Your task to perform on an android device: Go to notification settings Image 0: 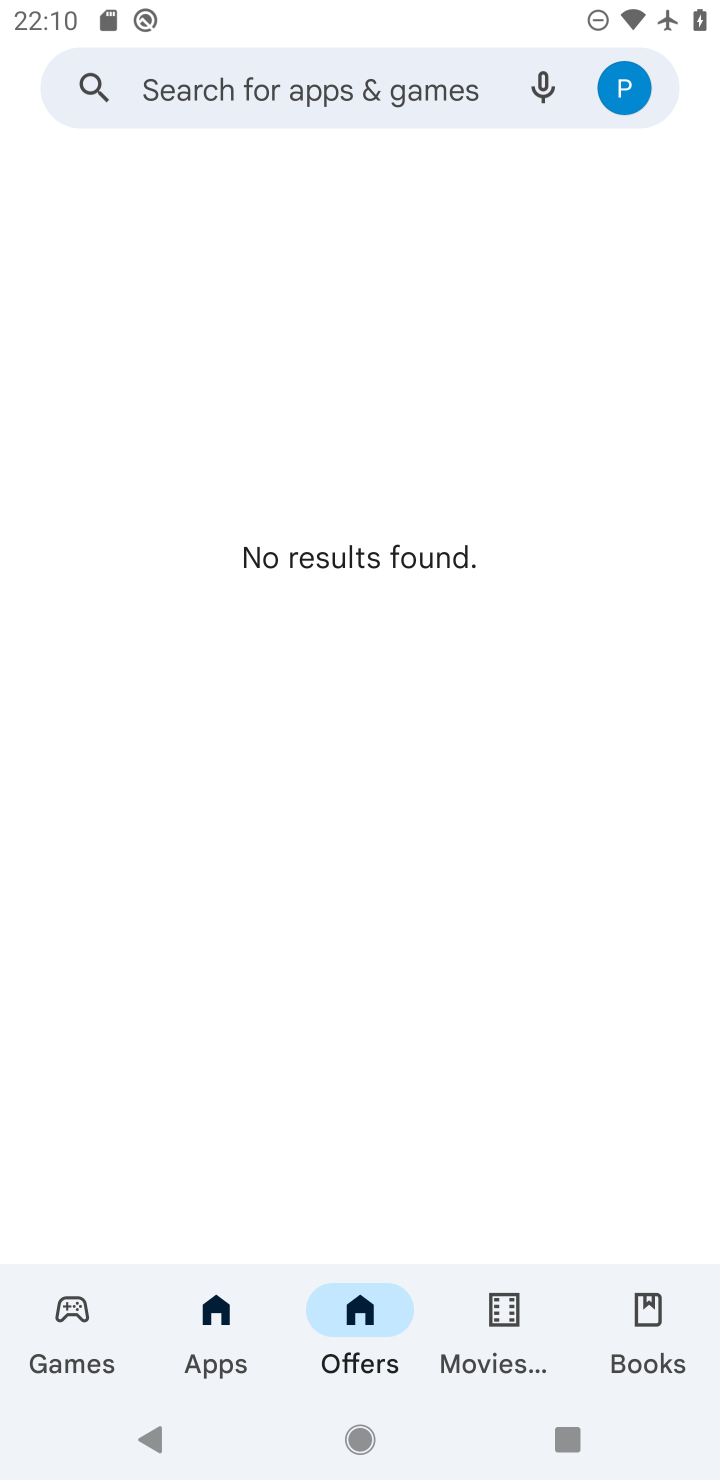
Step 0: press home button
Your task to perform on an android device: Go to notification settings Image 1: 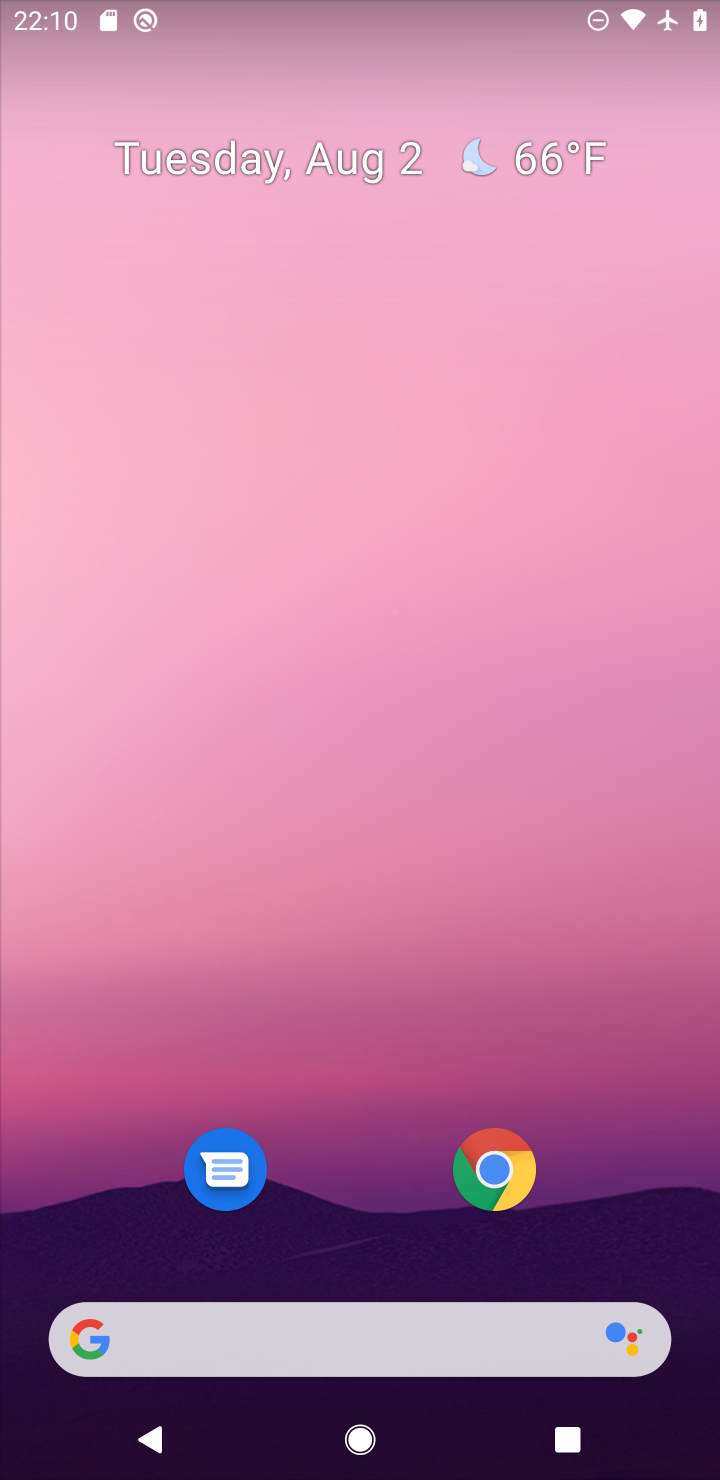
Step 1: drag from (370, 874) to (393, 36)
Your task to perform on an android device: Go to notification settings Image 2: 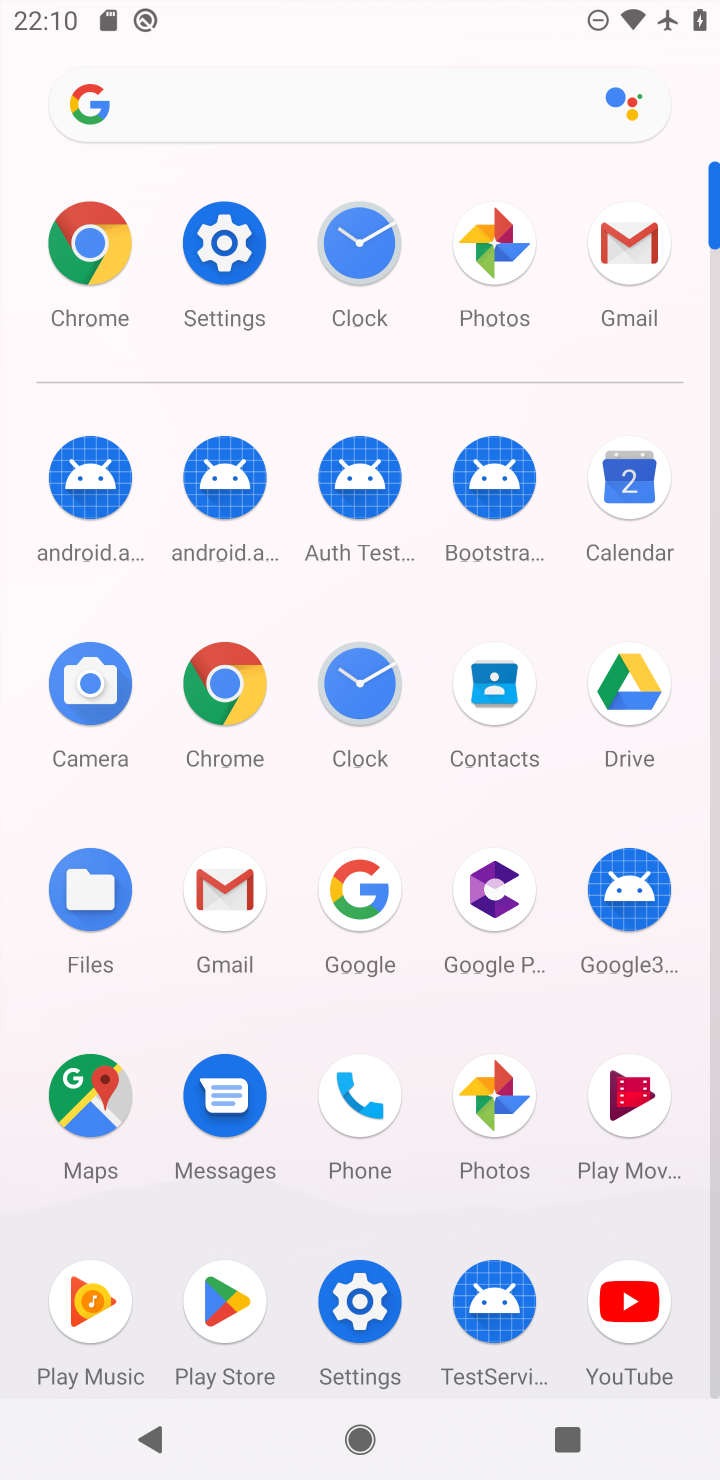
Step 2: click (225, 250)
Your task to perform on an android device: Go to notification settings Image 3: 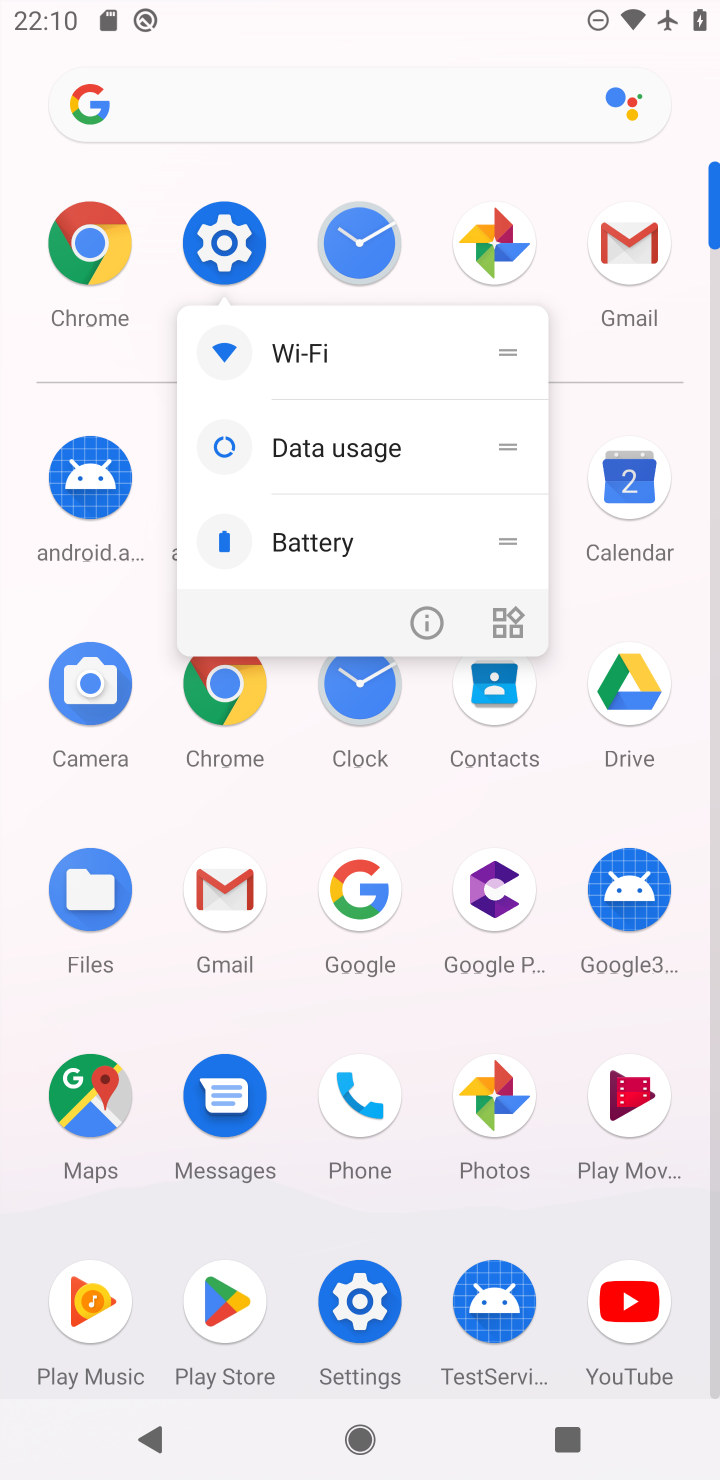
Step 3: click (225, 240)
Your task to perform on an android device: Go to notification settings Image 4: 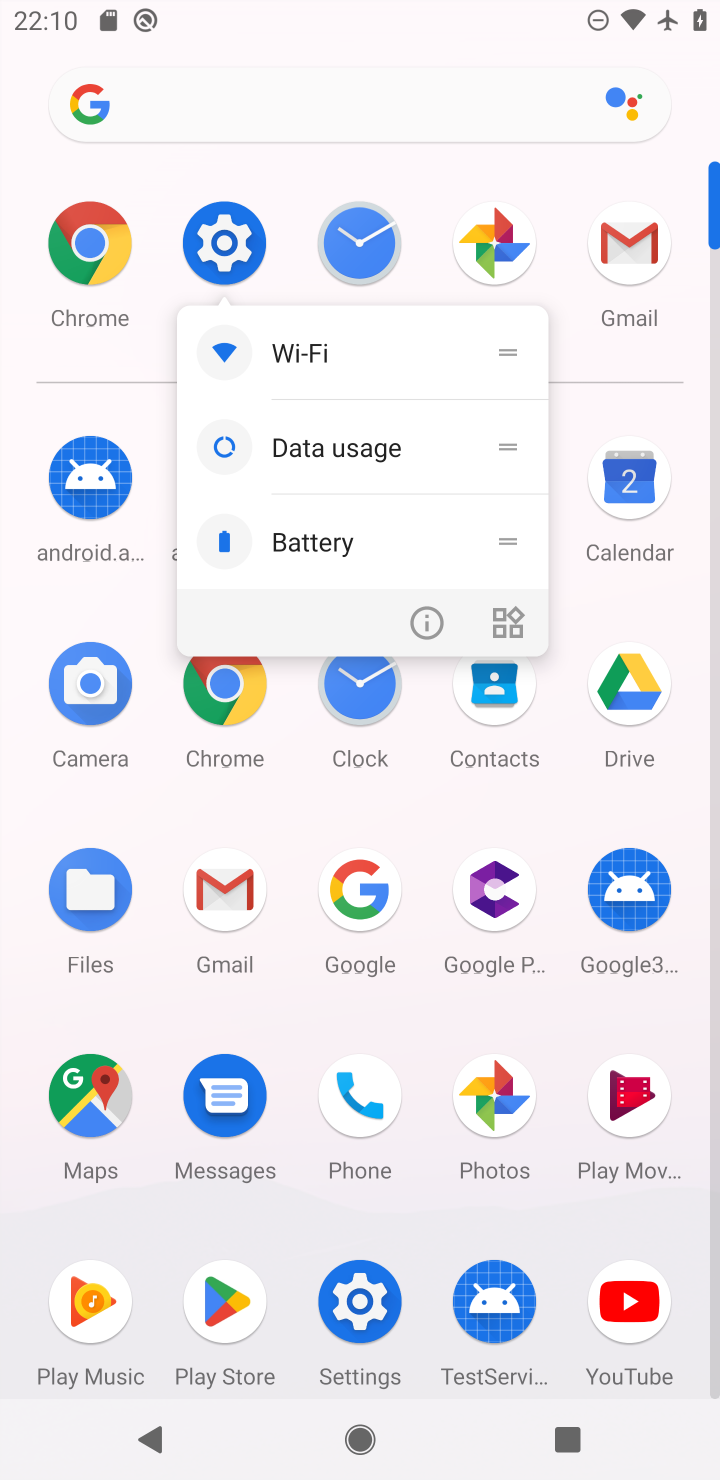
Step 4: click (222, 243)
Your task to perform on an android device: Go to notification settings Image 5: 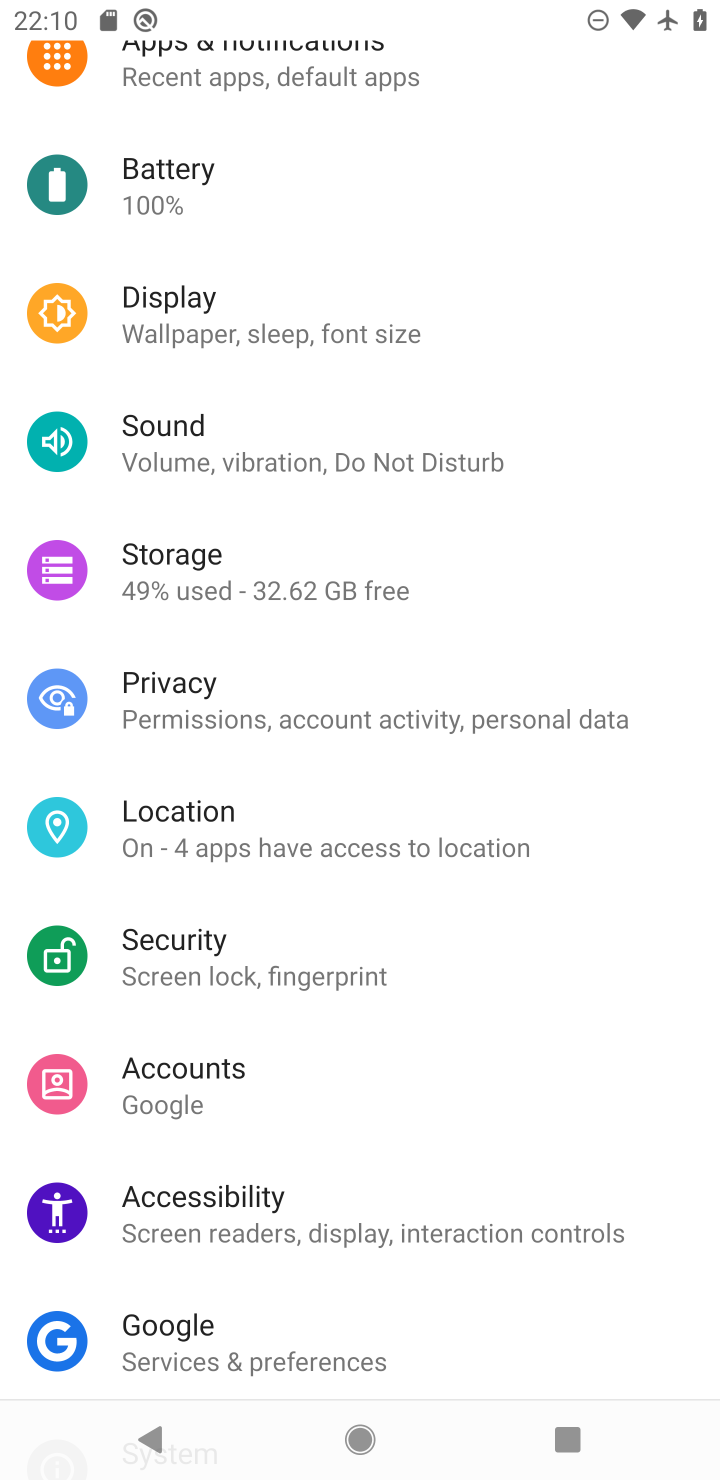
Step 5: drag from (292, 241) to (308, 1135)
Your task to perform on an android device: Go to notification settings Image 6: 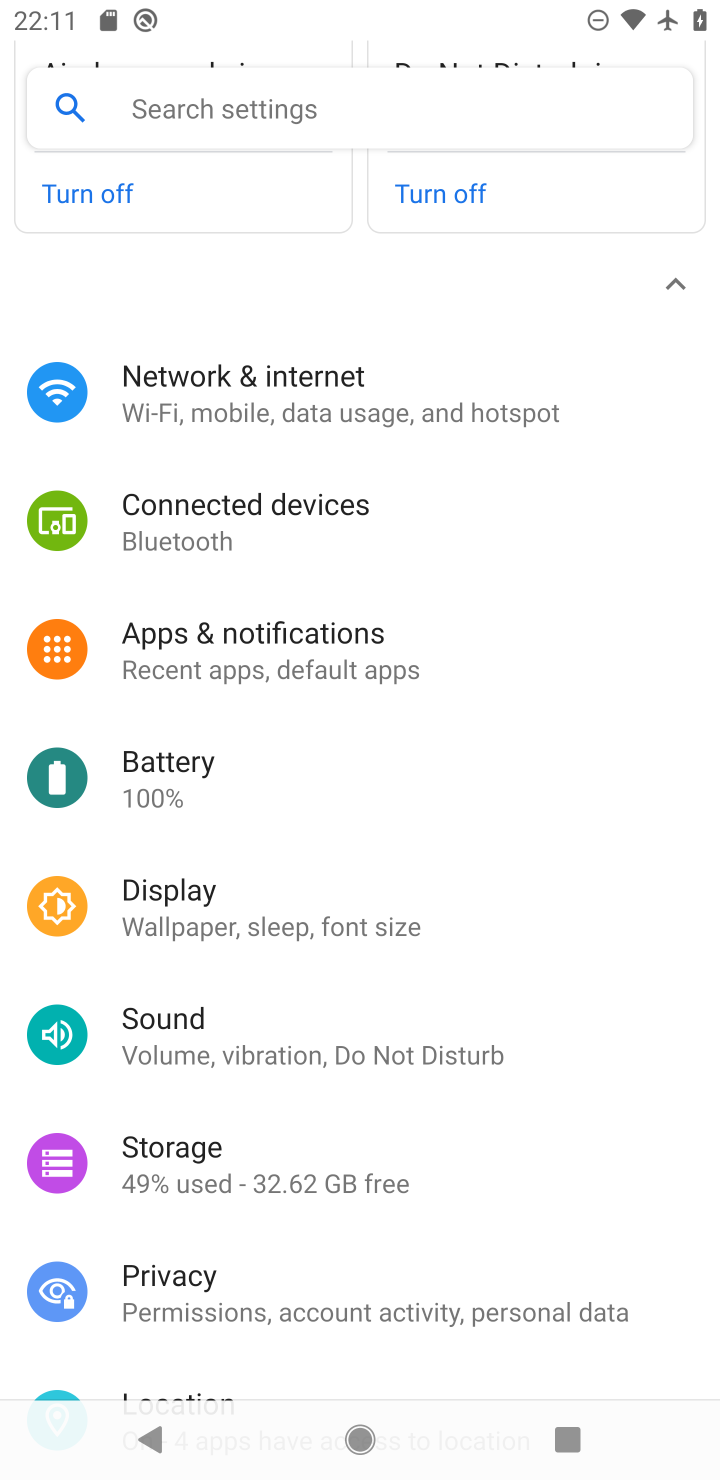
Step 6: click (256, 647)
Your task to perform on an android device: Go to notification settings Image 7: 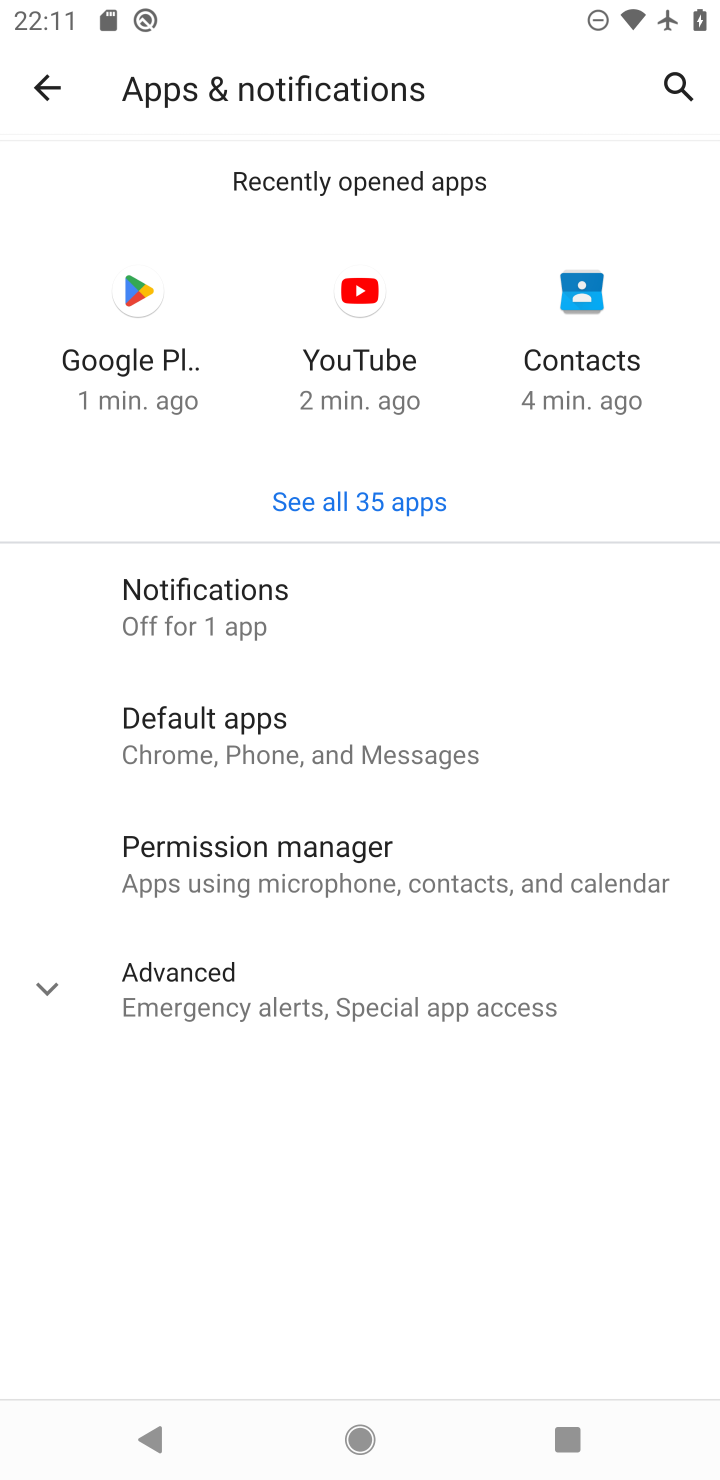
Step 7: click (212, 611)
Your task to perform on an android device: Go to notification settings Image 8: 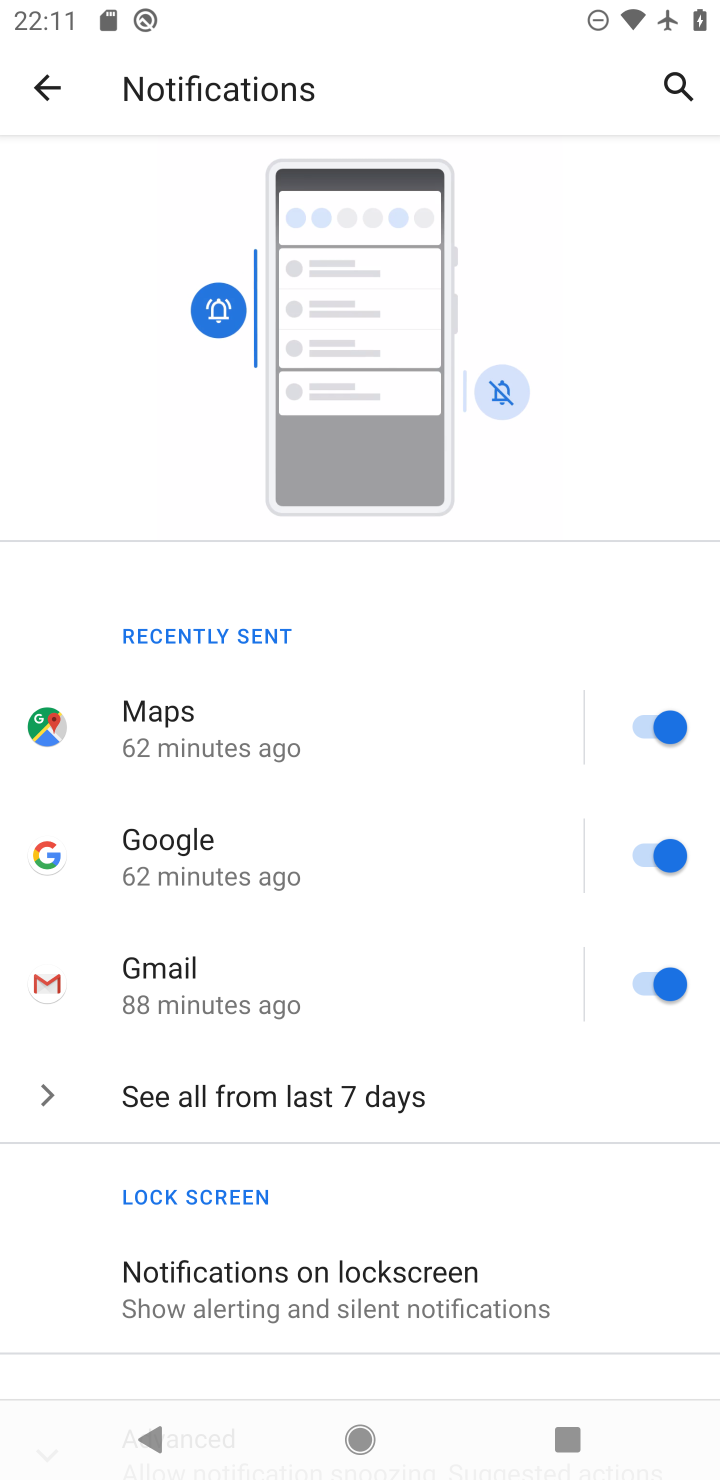
Step 8: task complete